Your task to perform on an android device: empty trash in the gmail app Image 0: 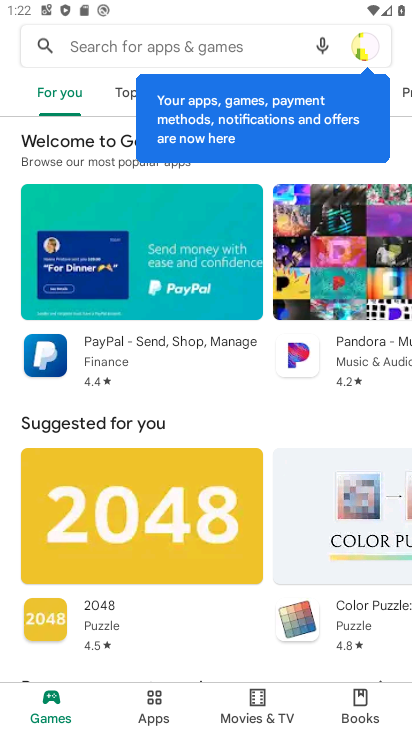
Step 0: press home button
Your task to perform on an android device: empty trash in the gmail app Image 1: 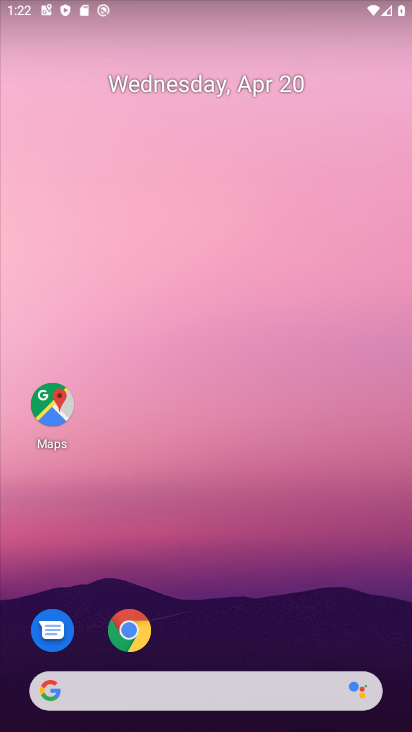
Step 1: drag from (232, 532) to (250, 200)
Your task to perform on an android device: empty trash in the gmail app Image 2: 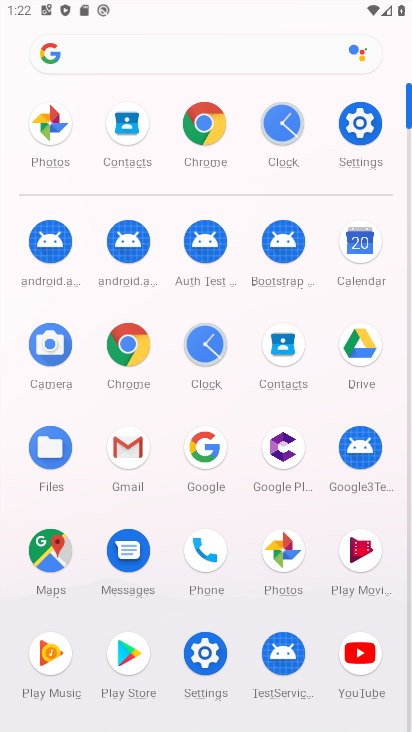
Step 2: click (136, 440)
Your task to perform on an android device: empty trash in the gmail app Image 3: 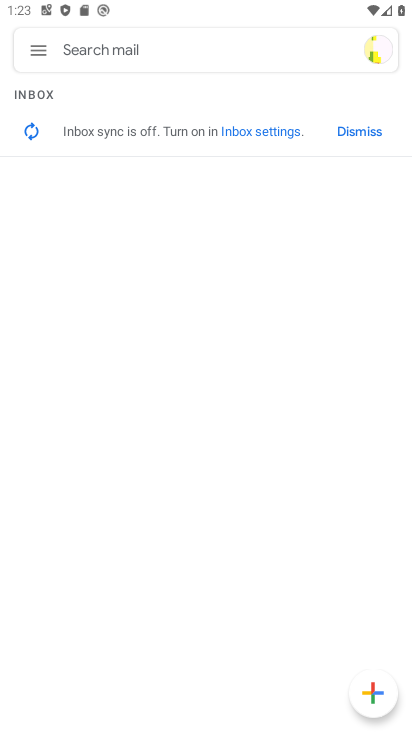
Step 3: click (46, 49)
Your task to perform on an android device: empty trash in the gmail app Image 4: 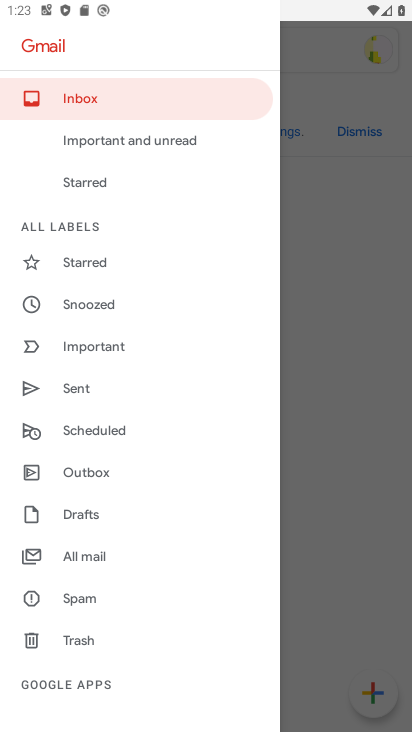
Step 4: drag from (167, 626) to (171, 337)
Your task to perform on an android device: empty trash in the gmail app Image 5: 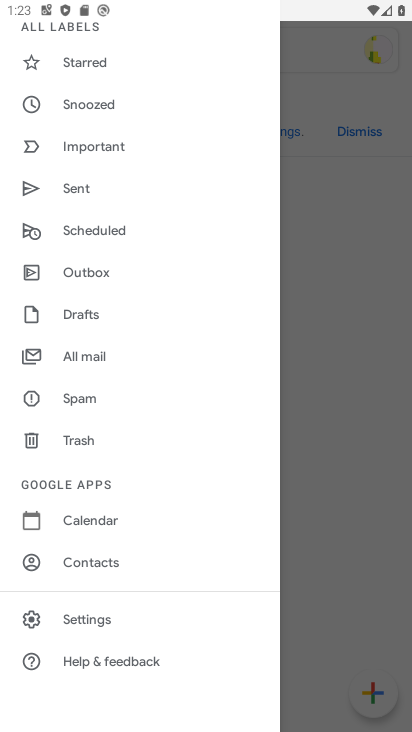
Step 5: click (94, 437)
Your task to perform on an android device: empty trash in the gmail app Image 6: 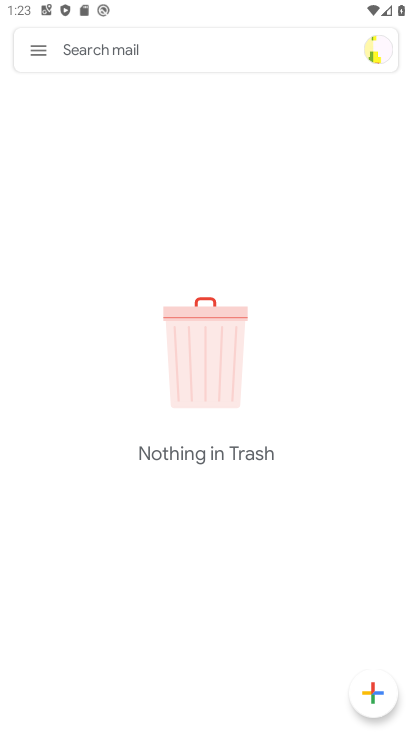
Step 6: task complete